Your task to perform on an android device: Go to Wikipedia Image 0: 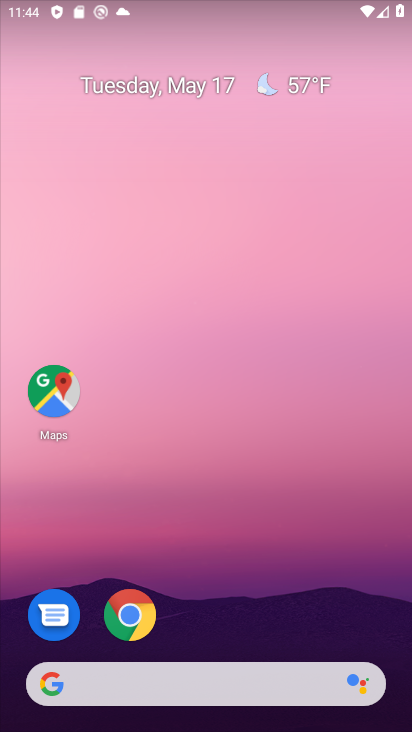
Step 0: drag from (336, 612) to (5, 37)
Your task to perform on an android device: Go to Wikipedia Image 1: 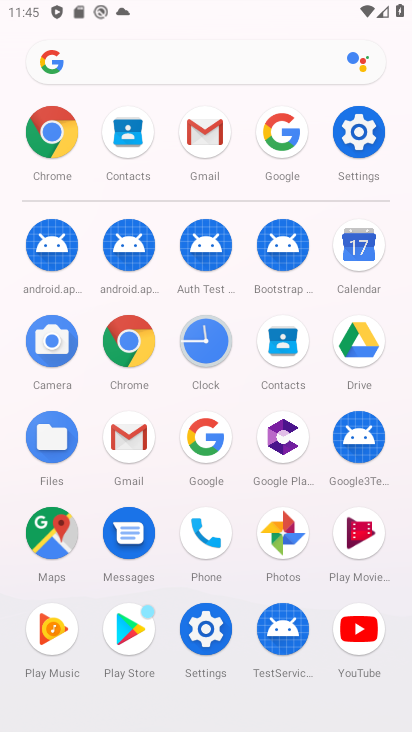
Step 1: click (119, 348)
Your task to perform on an android device: Go to Wikipedia Image 2: 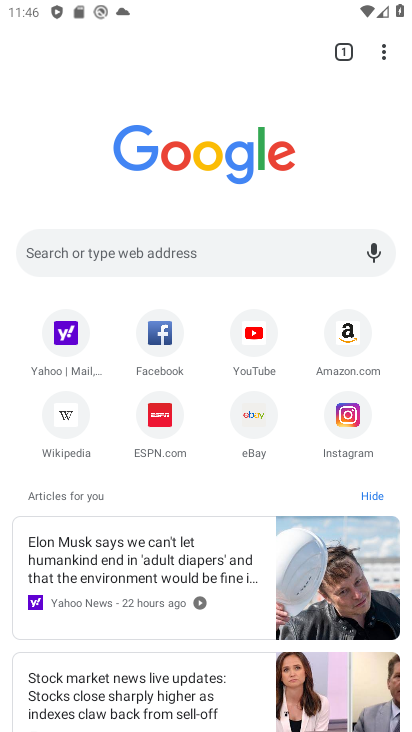
Step 2: click (61, 423)
Your task to perform on an android device: Go to Wikipedia Image 3: 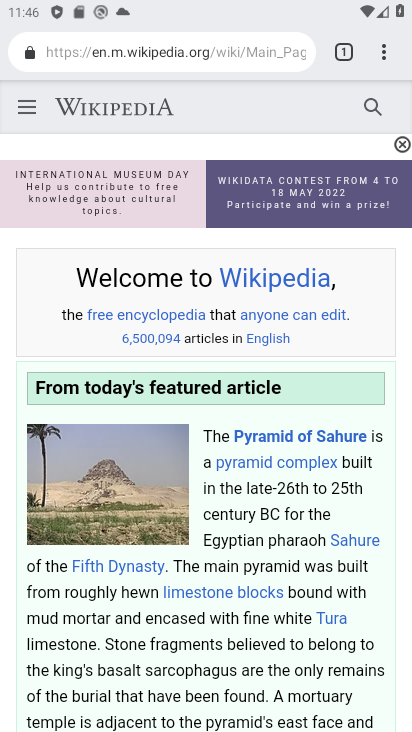
Step 3: task complete